Your task to perform on an android device: check storage Image 0: 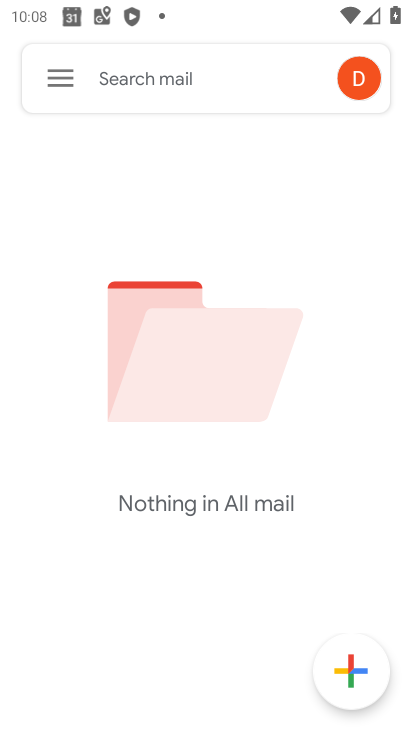
Step 0: press home button
Your task to perform on an android device: check storage Image 1: 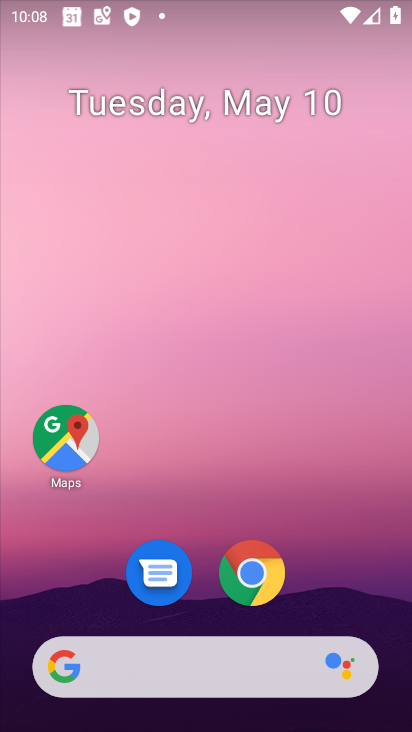
Step 1: drag from (324, 546) to (212, 147)
Your task to perform on an android device: check storage Image 2: 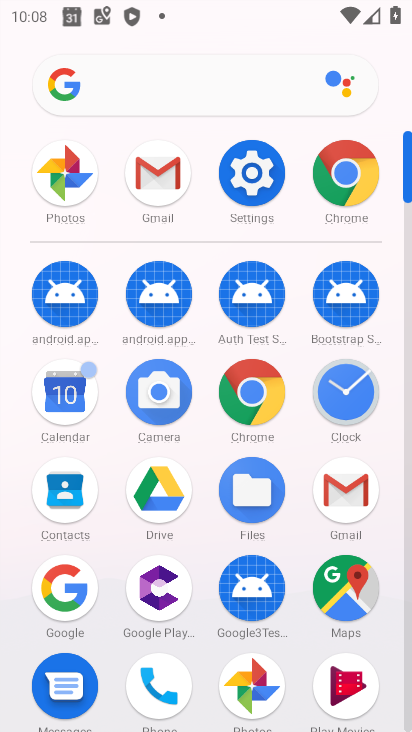
Step 2: click (245, 177)
Your task to perform on an android device: check storage Image 3: 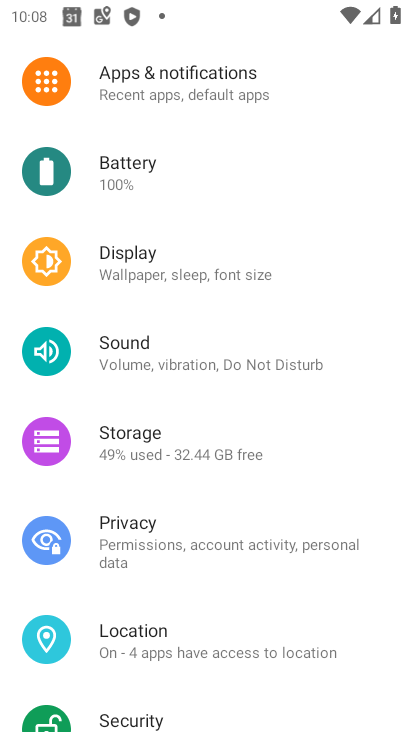
Step 3: click (133, 426)
Your task to perform on an android device: check storage Image 4: 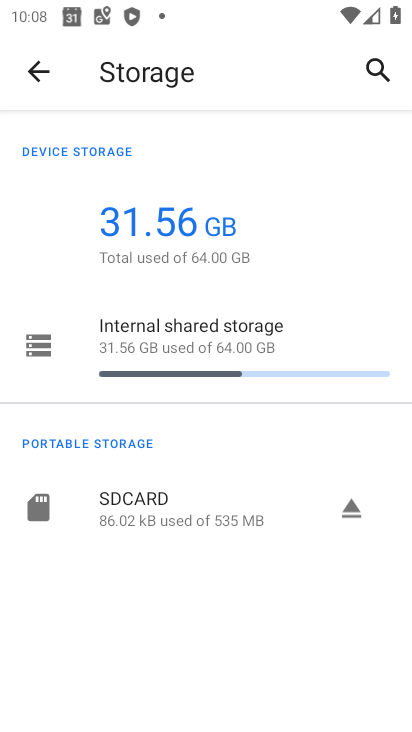
Step 4: task complete